Your task to perform on an android device: change the clock display to analog Image 0: 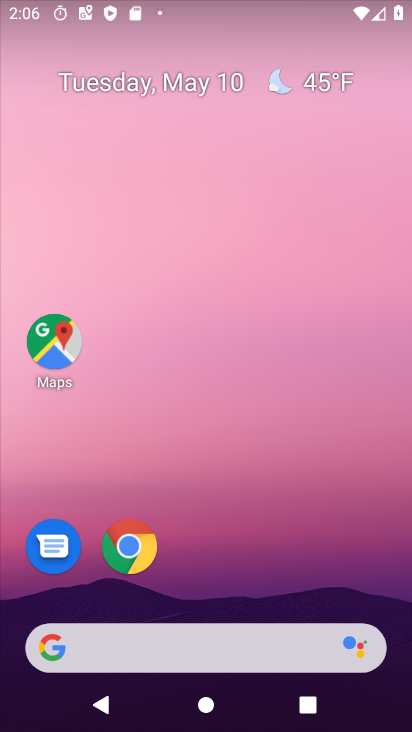
Step 0: drag from (344, 547) to (275, 179)
Your task to perform on an android device: change the clock display to analog Image 1: 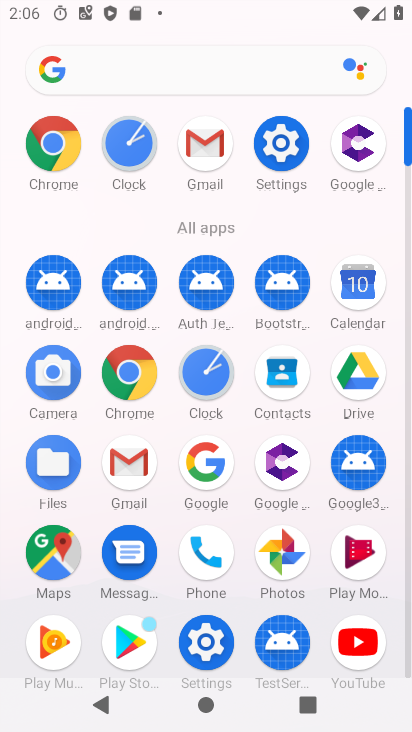
Step 1: click (145, 149)
Your task to perform on an android device: change the clock display to analog Image 2: 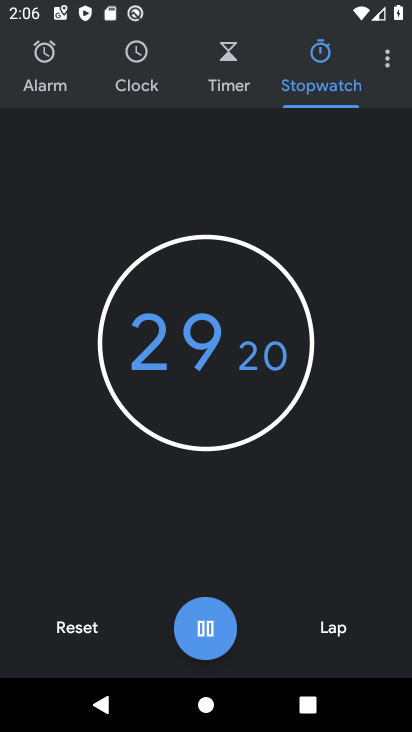
Step 2: click (376, 74)
Your task to perform on an android device: change the clock display to analog Image 3: 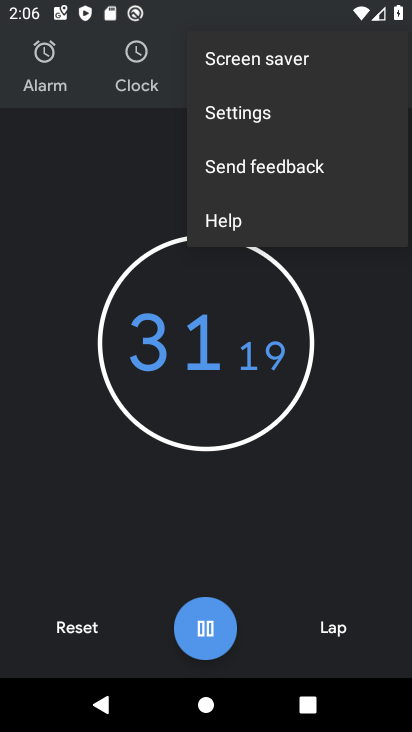
Step 3: click (268, 133)
Your task to perform on an android device: change the clock display to analog Image 4: 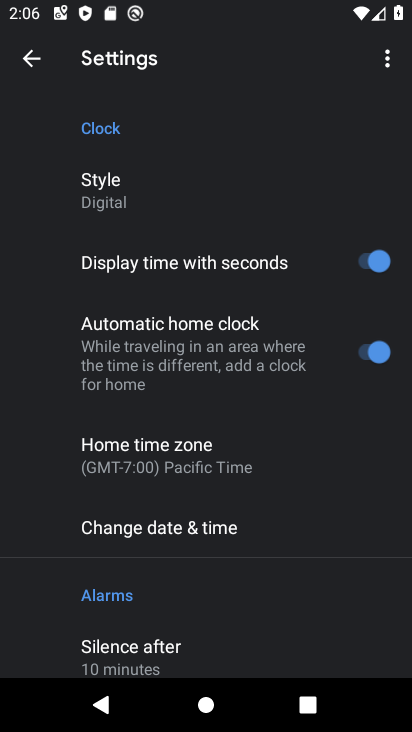
Step 4: click (127, 179)
Your task to perform on an android device: change the clock display to analog Image 5: 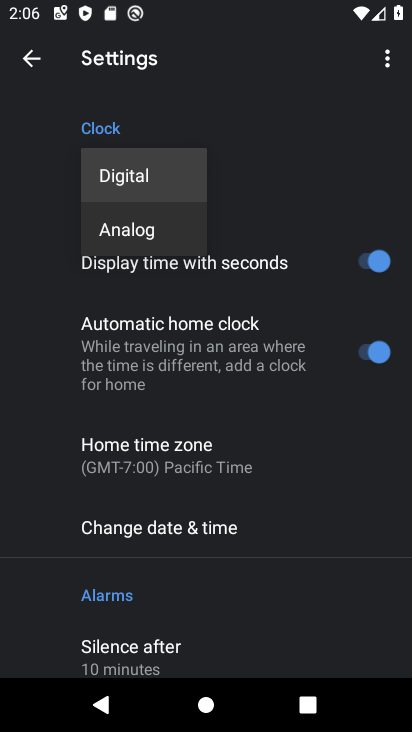
Step 5: click (135, 235)
Your task to perform on an android device: change the clock display to analog Image 6: 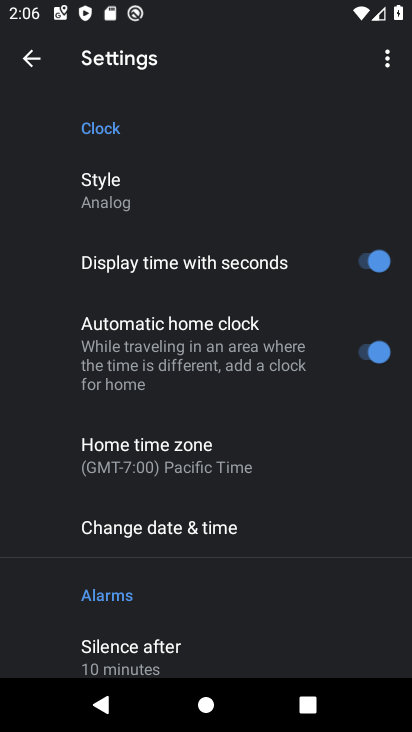
Step 6: task complete